Your task to perform on an android device: turn on airplane mode Image 0: 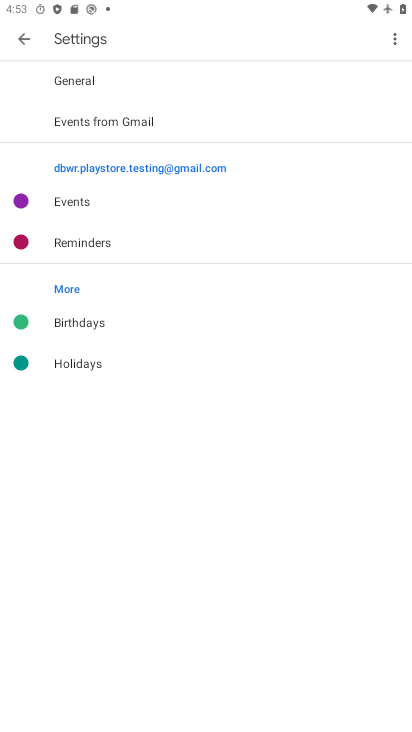
Step 0: press home button
Your task to perform on an android device: turn on airplane mode Image 1: 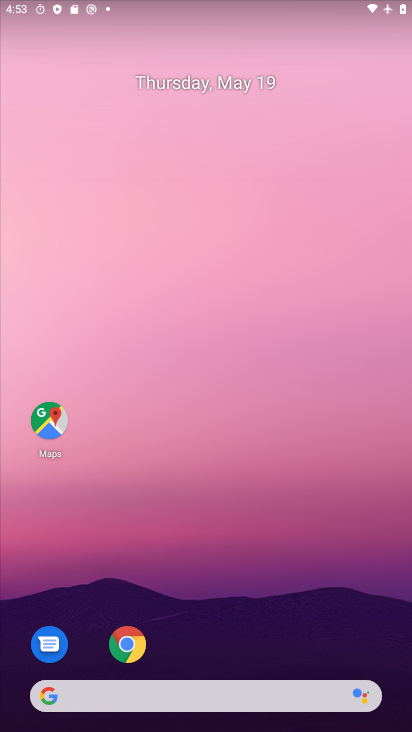
Step 1: task complete